Your task to perform on an android device: Open network settings Image 0: 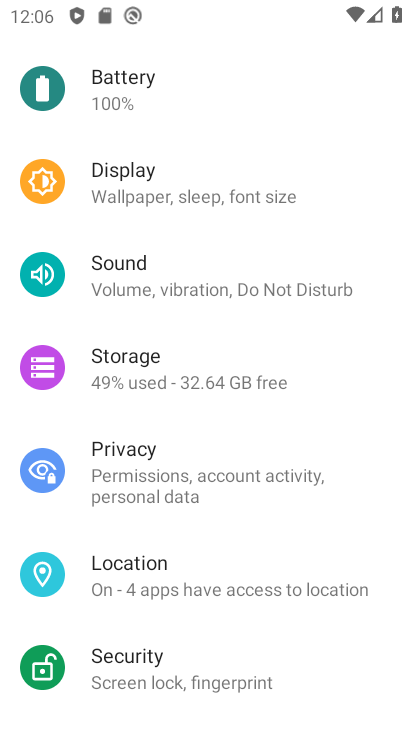
Step 0: drag from (246, 217) to (307, 525)
Your task to perform on an android device: Open network settings Image 1: 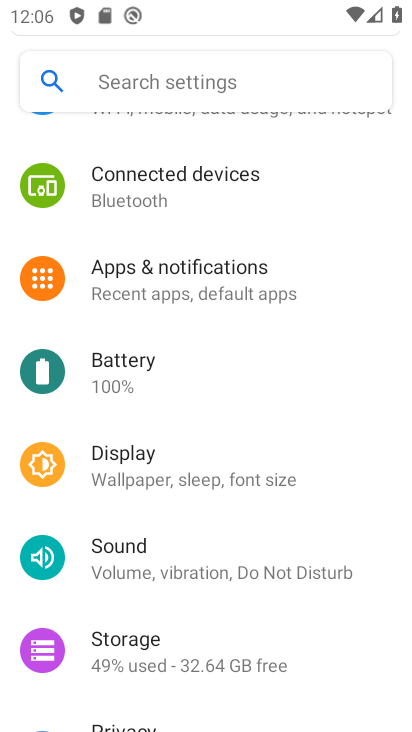
Step 1: drag from (233, 258) to (229, 535)
Your task to perform on an android device: Open network settings Image 2: 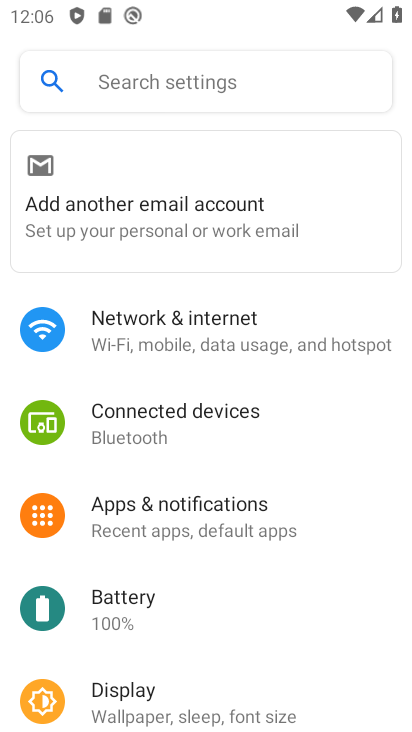
Step 2: click (223, 327)
Your task to perform on an android device: Open network settings Image 3: 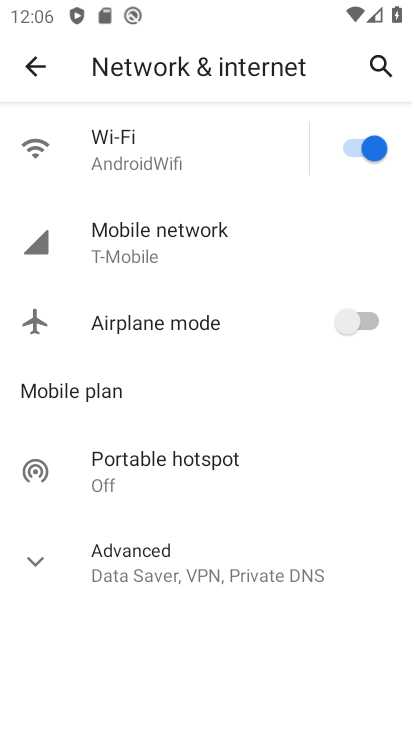
Step 3: task complete